Your task to perform on an android device: Open wifi settings Image 0: 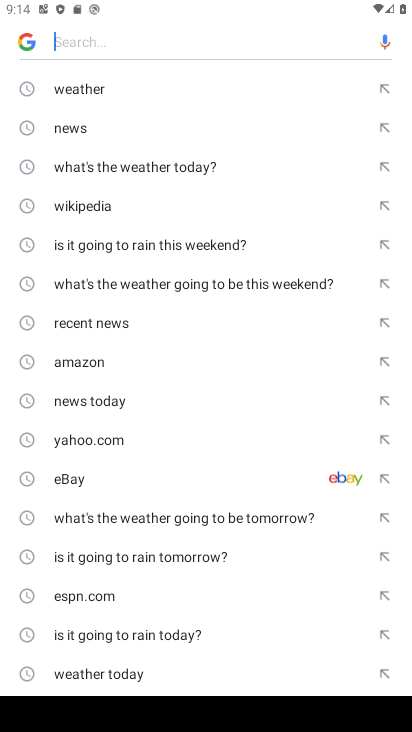
Step 0: press home button
Your task to perform on an android device: Open wifi settings Image 1: 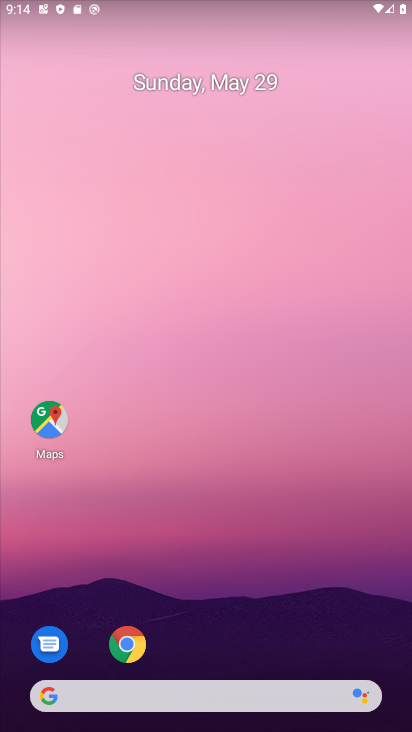
Step 1: drag from (263, 599) to (255, 296)
Your task to perform on an android device: Open wifi settings Image 2: 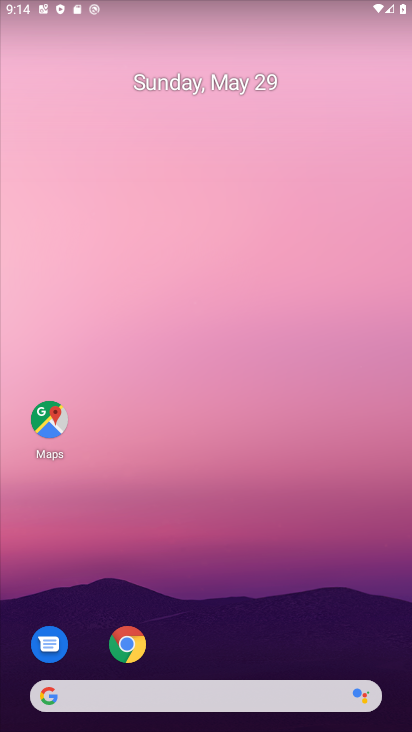
Step 2: drag from (259, 633) to (283, 224)
Your task to perform on an android device: Open wifi settings Image 3: 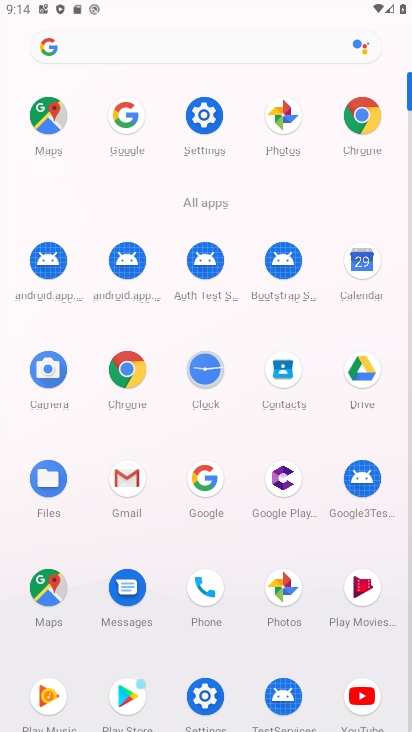
Step 3: click (190, 105)
Your task to perform on an android device: Open wifi settings Image 4: 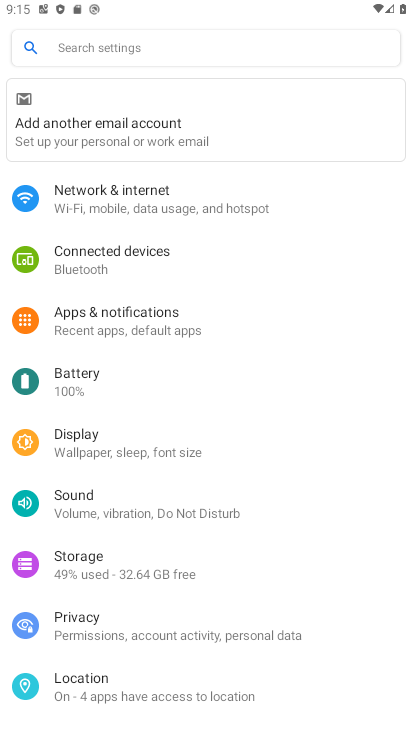
Step 4: click (168, 201)
Your task to perform on an android device: Open wifi settings Image 5: 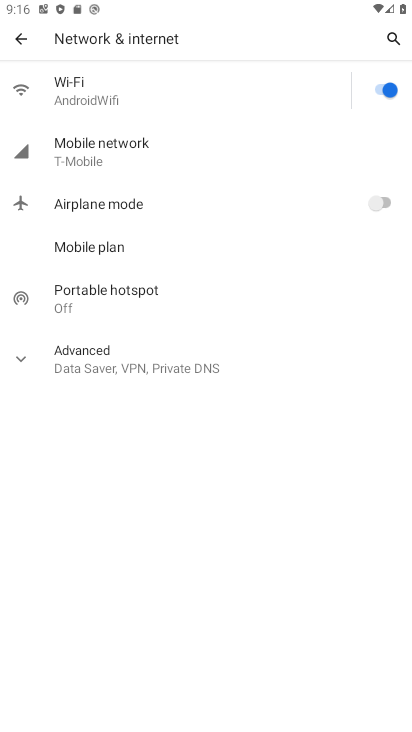
Step 5: task complete